Your task to perform on an android device: Open calendar and show me the first week of next month Image 0: 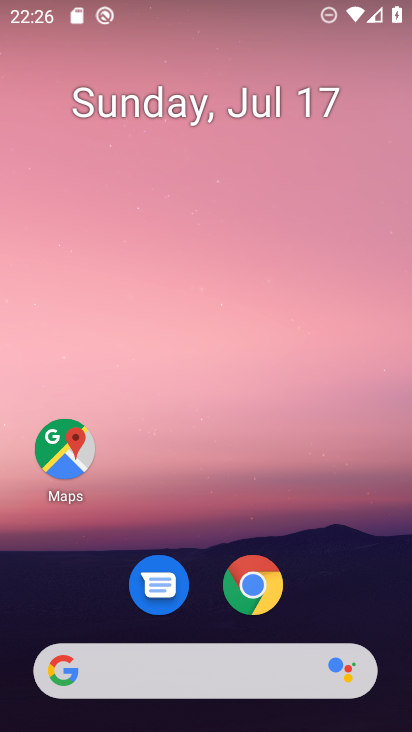
Step 0: press home button
Your task to perform on an android device: Open calendar and show me the first week of next month Image 1: 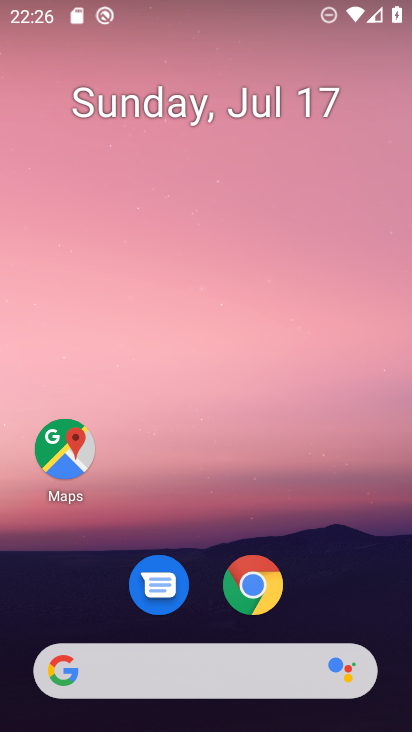
Step 1: drag from (150, 666) to (246, 163)
Your task to perform on an android device: Open calendar and show me the first week of next month Image 2: 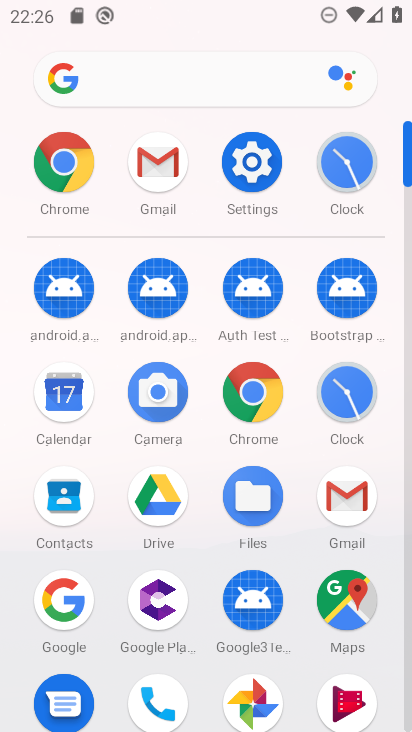
Step 2: click (66, 414)
Your task to perform on an android device: Open calendar and show me the first week of next month Image 3: 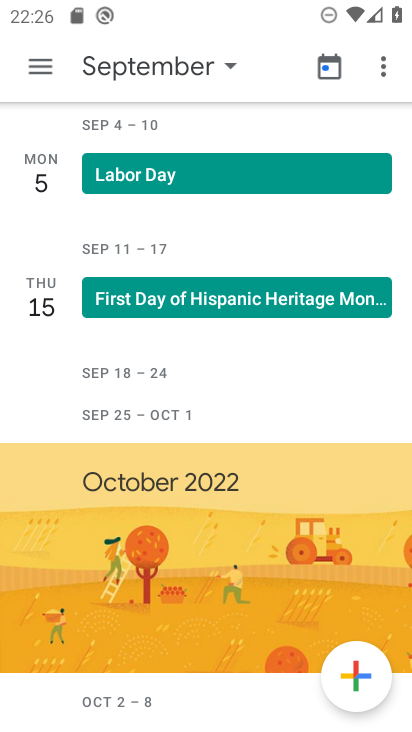
Step 3: drag from (218, 115) to (199, 629)
Your task to perform on an android device: Open calendar and show me the first week of next month Image 4: 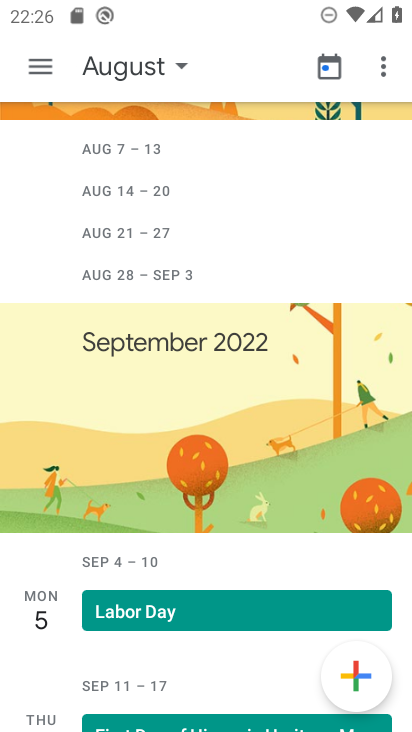
Step 4: click (135, 76)
Your task to perform on an android device: Open calendar and show me the first week of next month Image 5: 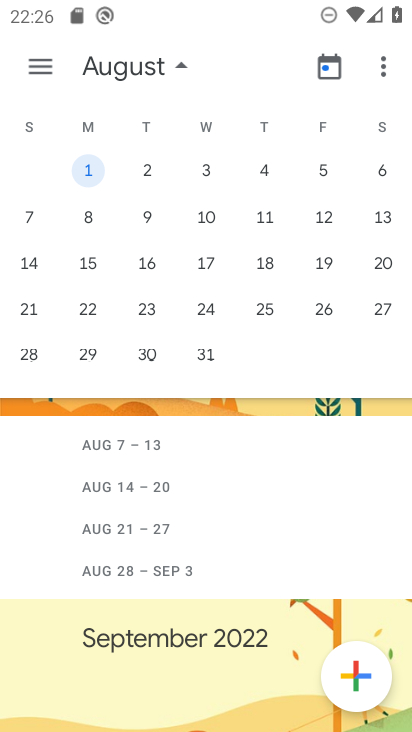
Step 5: click (85, 168)
Your task to perform on an android device: Open calendar and show me the first week of next month Image 6: 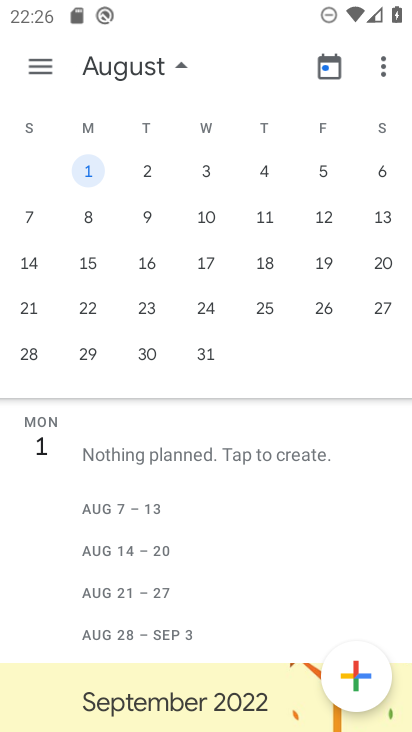
Step 6: click (49, 62)
Your task to perform on an android device: Open calendar and show me the first week of next month Image 7: 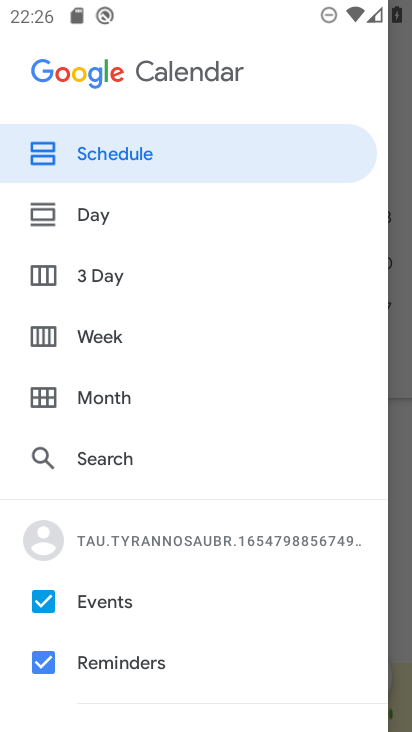
Step 7: click (104, 340)
Your task to perform on an android device: Open calendar and show me the first week of next month Image 8: 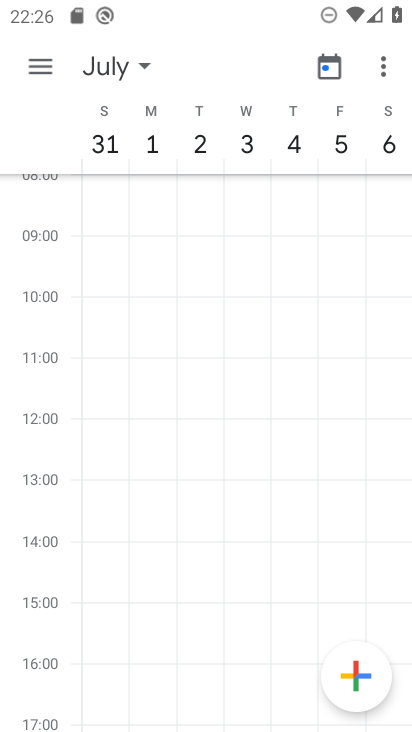
Step 8: task complete